Your task to perform on an android device: remove spam from my inbox in the gmail app Image 0: 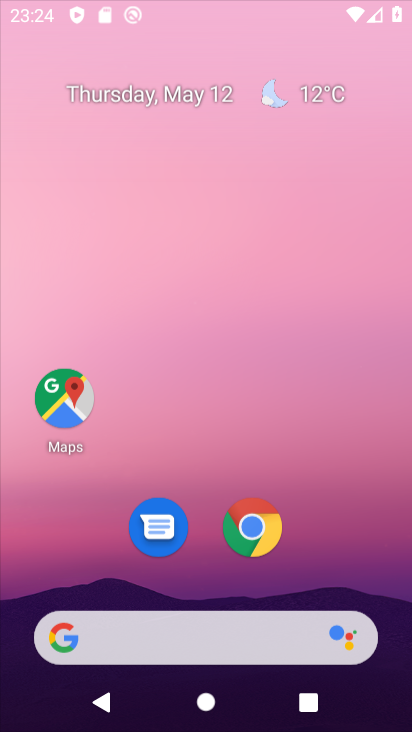
Step 0: press home button
Your task to perform on an android device: remove spam from my inbox in the gmail app Image 1: 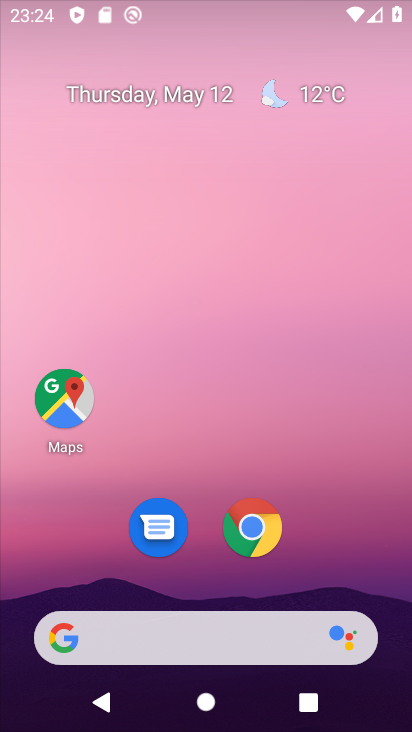
Step 1: press home button
Your task to perform on an android device: remove spam from my inbox in the gmail app Image 2: 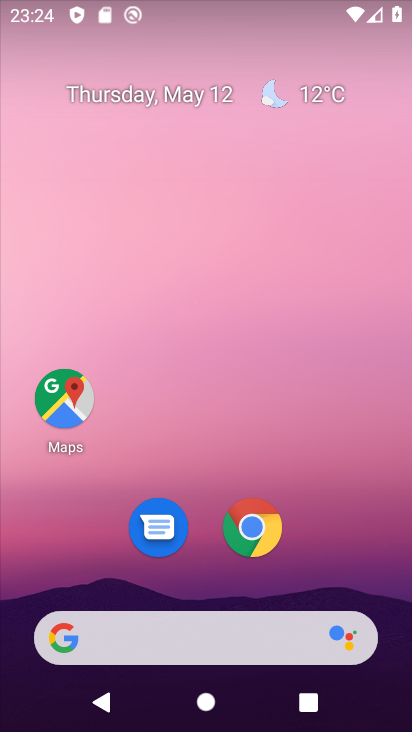
Step 2: drag from (43, 426) to (180, 208)
Your task to perform on an android device: remove spam from my inbox in the gmail app Image 3: 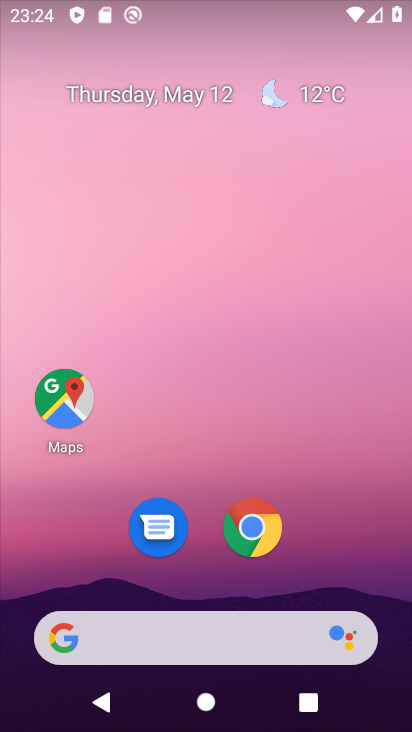
Step 3: drag from (45, 541) to (384, 81)
Your task to perform on an android device: remove spam from my inbox in the gmail app Image 4: 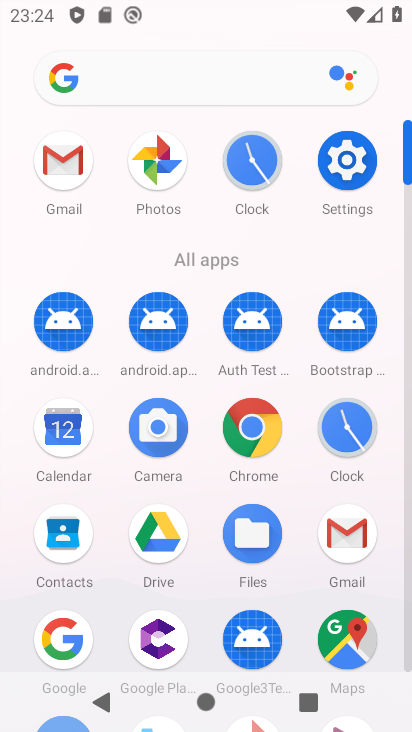
Step 4: click (37, 162)
Your task to perform on an android device: remove spam from my inbox in the gmail app Image 5: 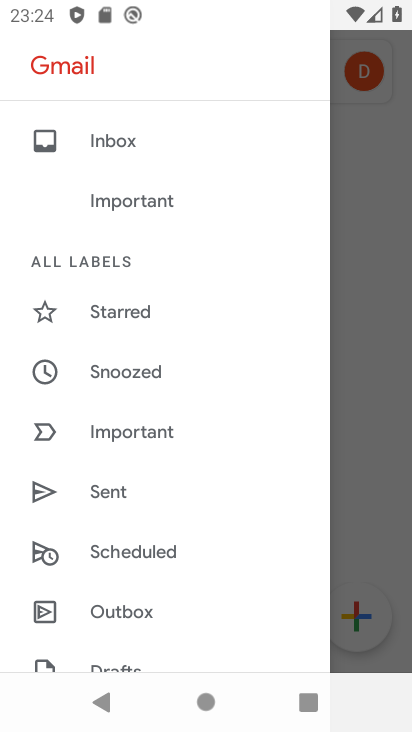
Step 5: click (254, 194)
Your task to perform on an android device: remove spam from my inbox in the gmail app Image 6: 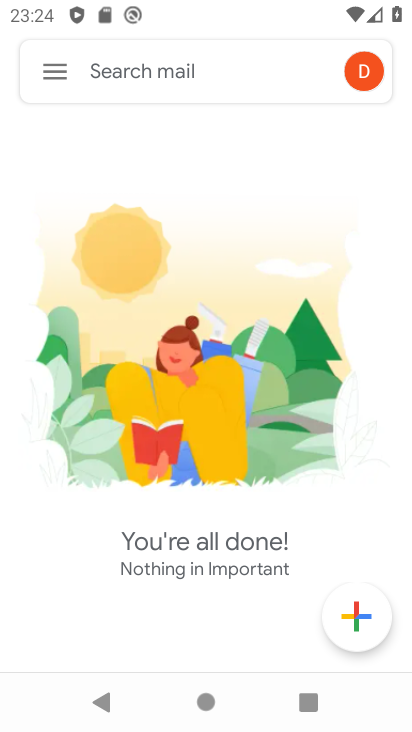
Step 6: click (45, 63)
Your task to perform on an android device: remove spam from my inbox in the gmail app Image 7: 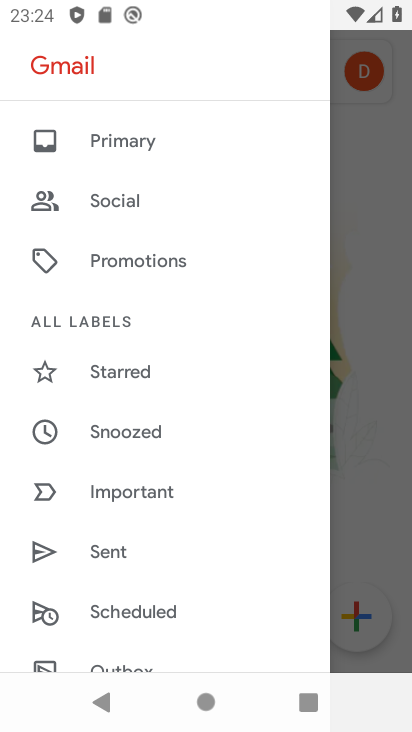
Step 7: drag from (30, 539) to (244, 162)
Your task to perform on an android device: remove spam from my inbox in the gmail app Image 8: 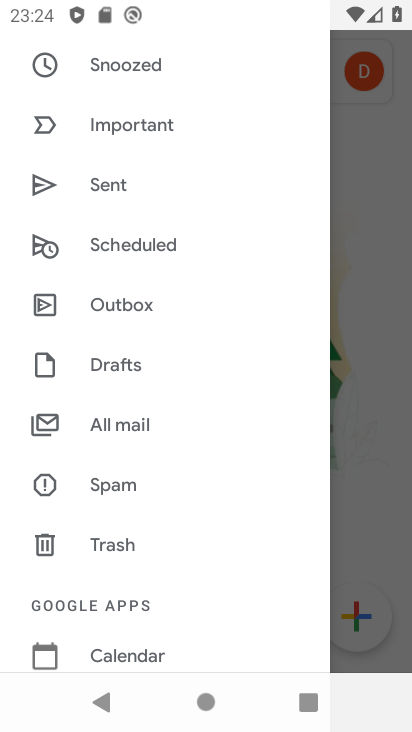
Step 8: click (122, 480)
Your task to perform on an android device: remove spam from my inbox in the gmail app Image 9: 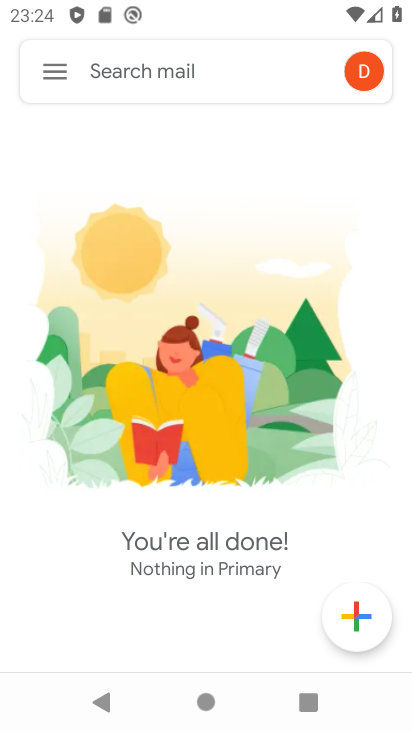
Step 9: task complete